Your task to perform on an android device: Open notification settings Image 0: 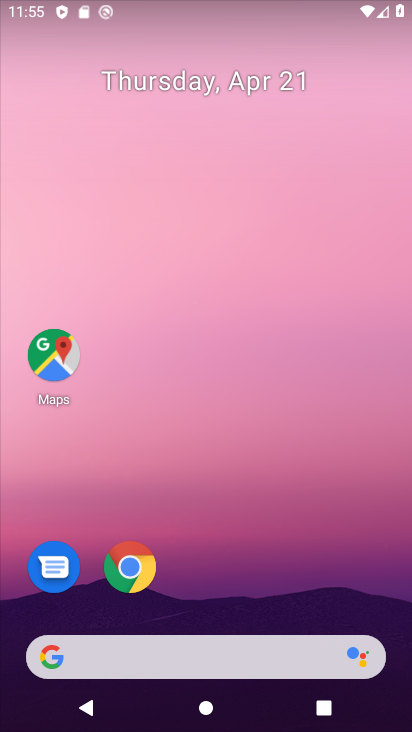
Step 0: drag from (256, 557) to (248, 117)
Your task to perform on an android device: Open notification settings Image 1: 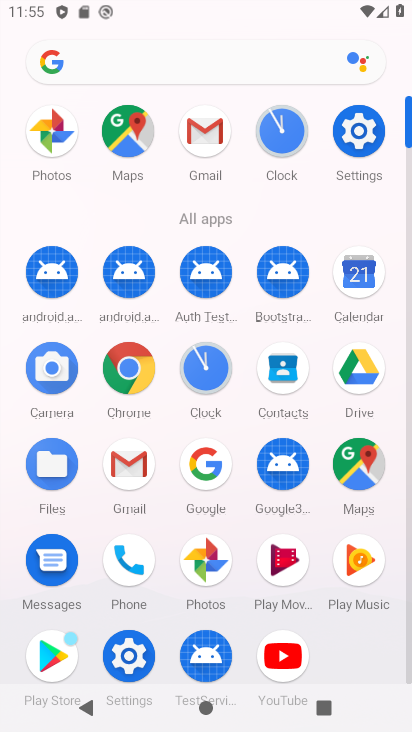
Step 1: click (353, 141)
Your task to perform on an android device: Open notification settings Image 2: 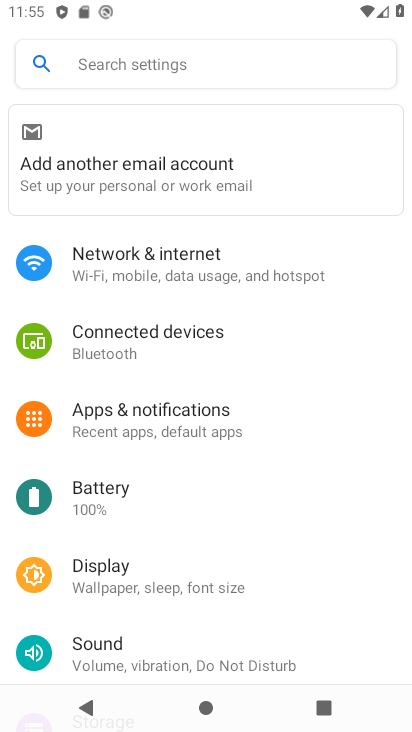
Step 2: click (198, 419)
Your task to perform on an android device: Open notification settings Image 3: 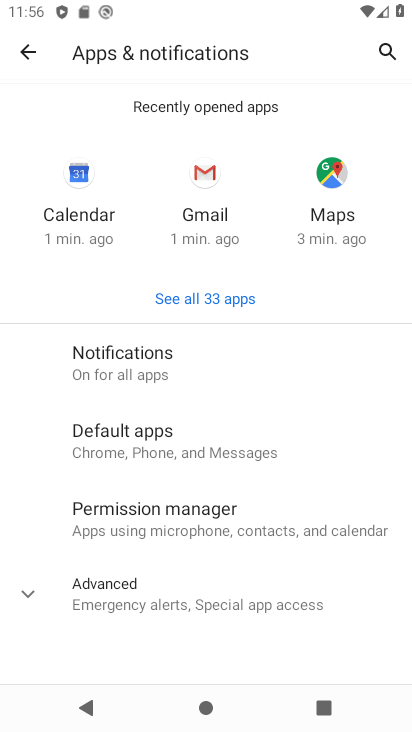
Step 3: click (163, 367)
Your task to perform on an android device: Open notification settings Image 4: 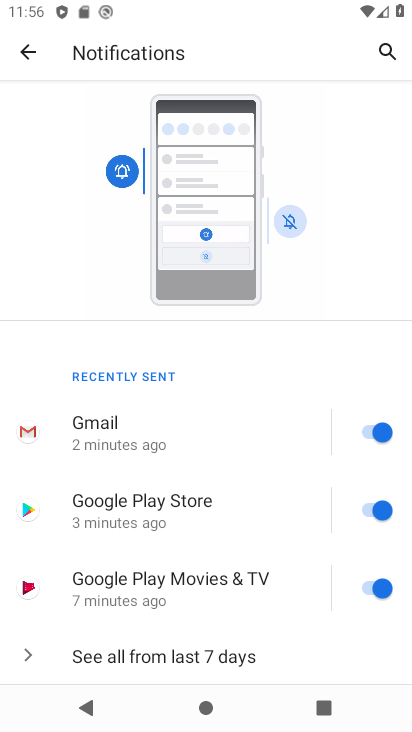
Step 4: task complete